Your task to perform on an android device: toggle data saver in the chrome app Image 0: 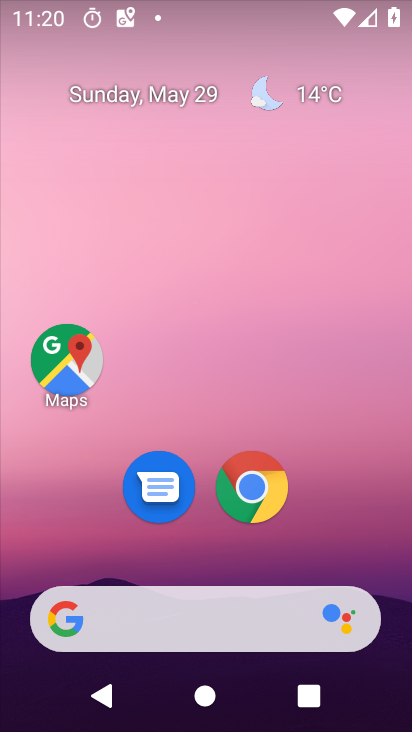
Step 0: click (248, 475)
Your task to perform on an android device: toggle data saver in the chrome app Image 1: 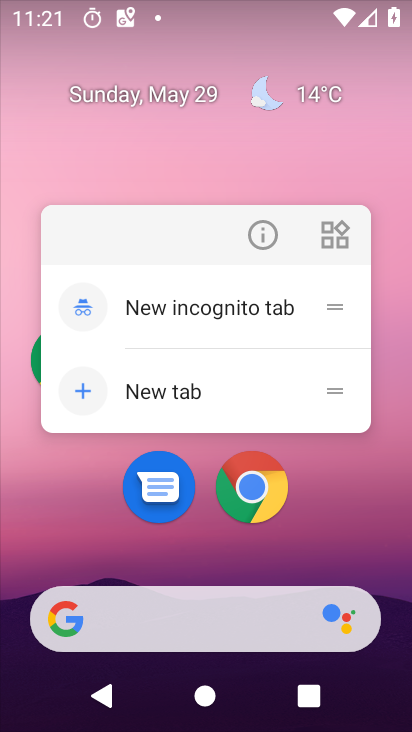
Step 1: click (250, 475)
Your task to perform on an android device: toggle data saver in the chrome app Image 2: 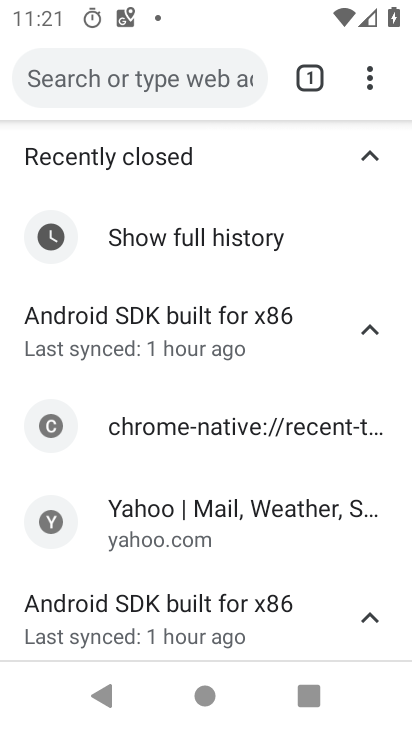
Step 2: click (366, 71)
Your task to perform on an android device: toggle data saver in the chrome app Image 3: 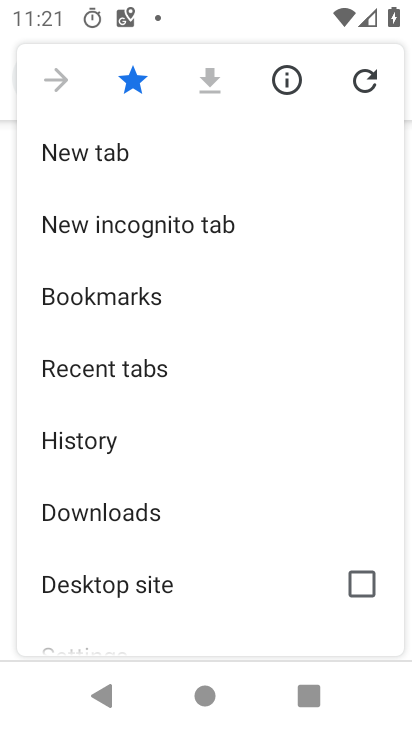
Step 3: drag from (227, 571) to (234, 200)
Your task to perform on an android device: toggle data saver in the chrome app Image 4: 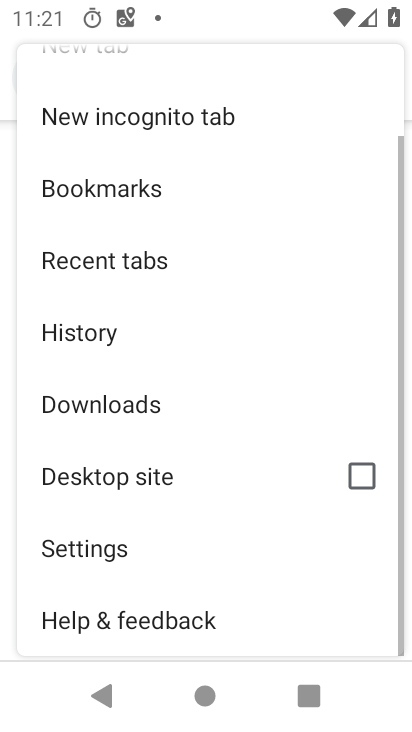
Step 4: click (98, 539)
Your task to perform on an android device: toggle data saver in the chrome app Image 5: 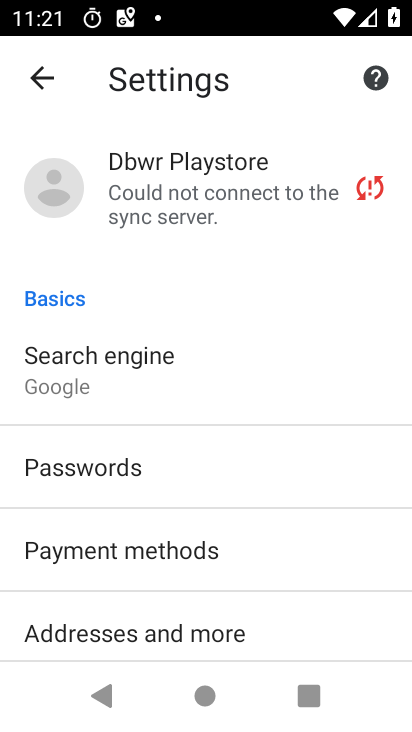
Step 5: drag from (306, 638) to (299, 240)
Your task to perform on an android device: toggle data saver in the chrome app Image 6: 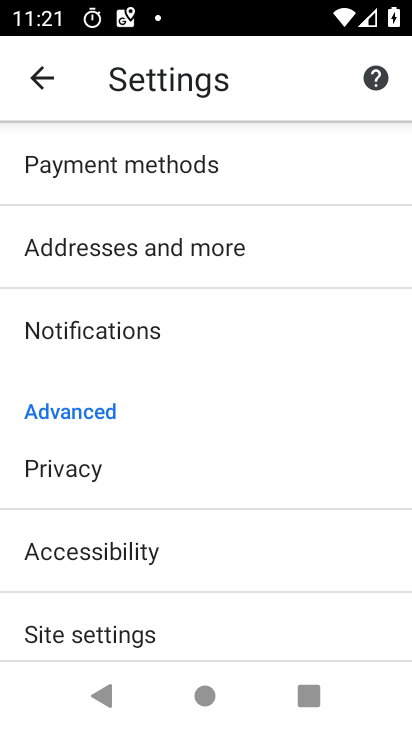
Step 6: click (100, 630)
Your task to perform on an android device: toggle data saver in the chrome app Image 7: 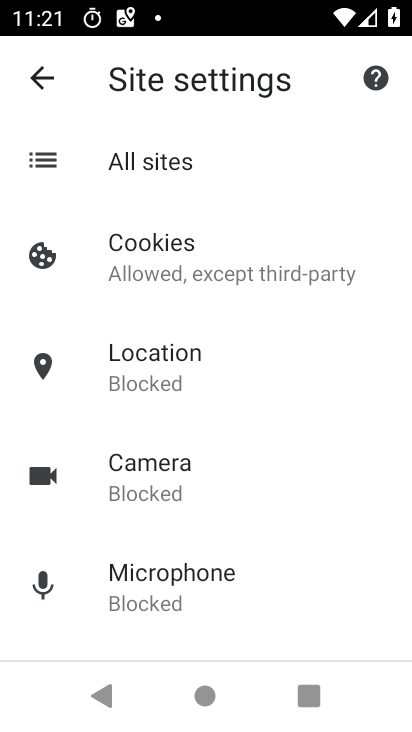
Step 7: drag from (359, 617) to (331, 222)
Your task to perform on an android device: toggle data saver in the chrome app Image 8: 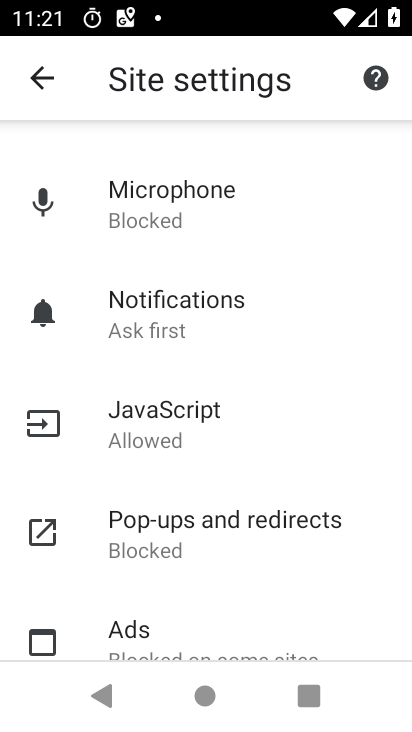
Step 8: drag from (275, 575) to (288, 250)
Your task to perform on an android device: toggle data saver in the chrome app Image 9: 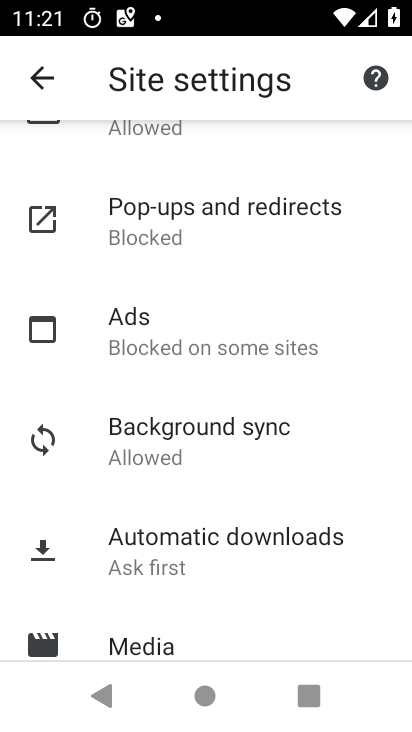
Step 9: drag from (260, 623) to (265, 317)
Your task to perform on an android device: toggle data saver in the chrome app Image 10: 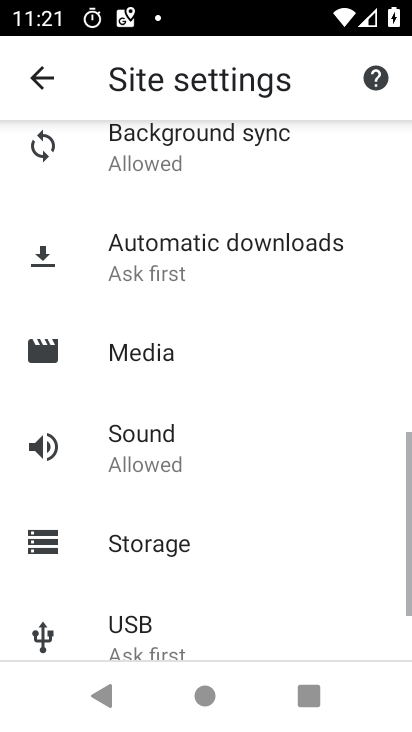
Step 10: click (37, 84)
Your task to perform on an android device: toggle data saver in the chrome app Image 11: 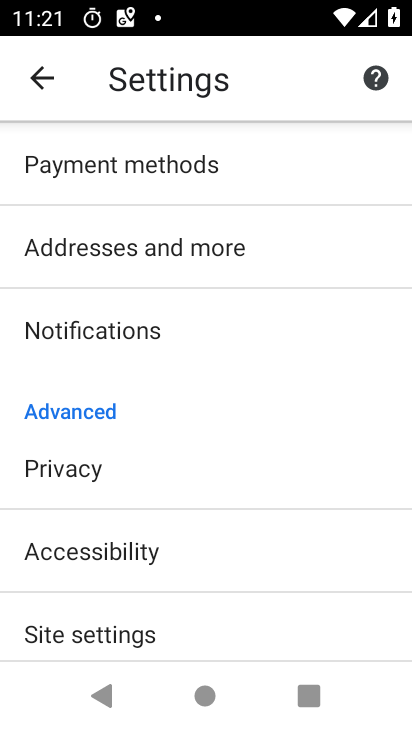
Step 11: drag from (247, 637) to (274, 272)
Your task to perform on an android device: toggle data saver in the chrome app Image 12: 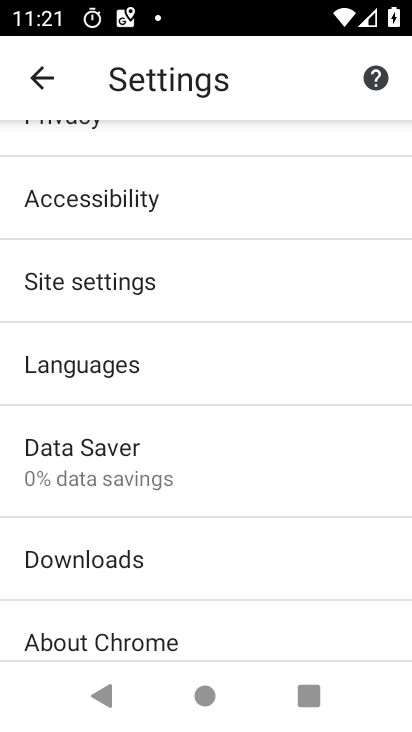
Step 12: click (140, 451)
Your task to perform on an android device: toggle data saver in the chrome app Image 13: 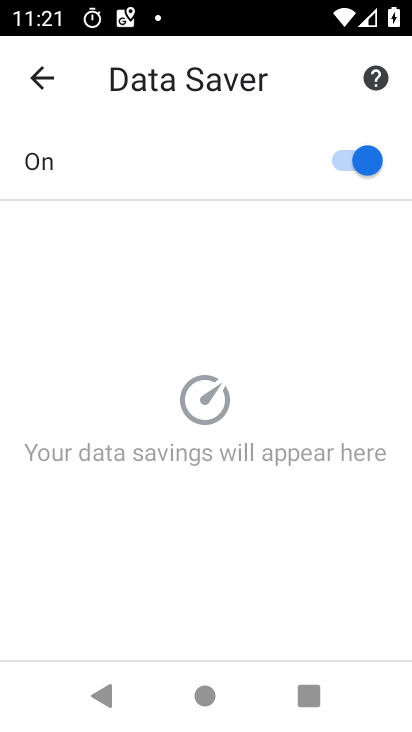
Step 13: click (330, 158)
Your task to perform on an android device: toggle data saver in the chrome app Image 14: 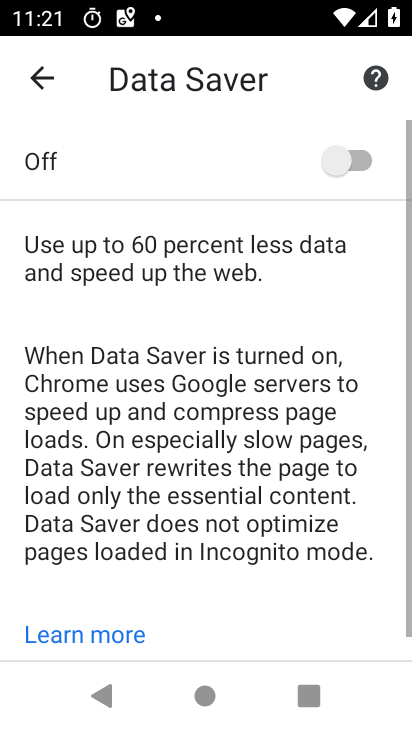
Step 14: task complete